Your task to perform on an android device: remove spam from my inbox in the gmail app Image 0: 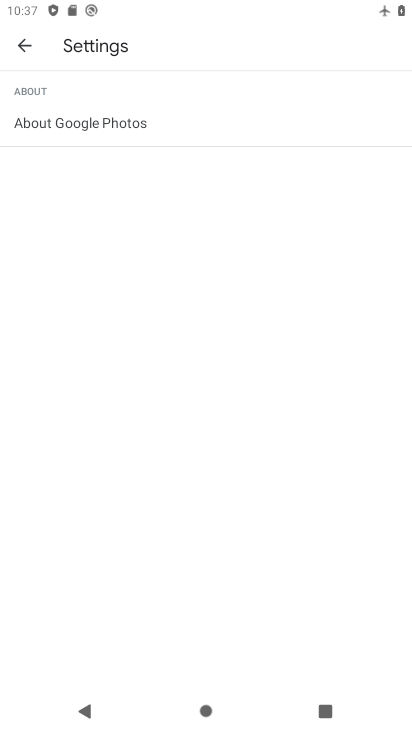
Step 0: press home button
Your task to perform on an android device: remove spam from my inbox in the gmail app Image 1: 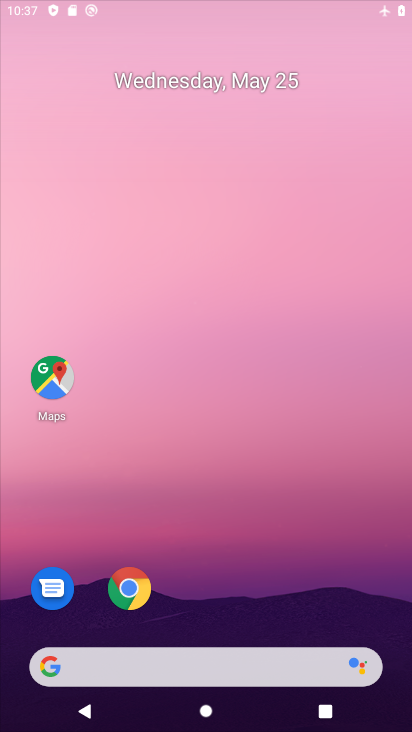
Step 1: drag from (321, 542) to (259, 85)
Your task to perform on an android device: remove spam from my inbox in the gmail app Image 2: 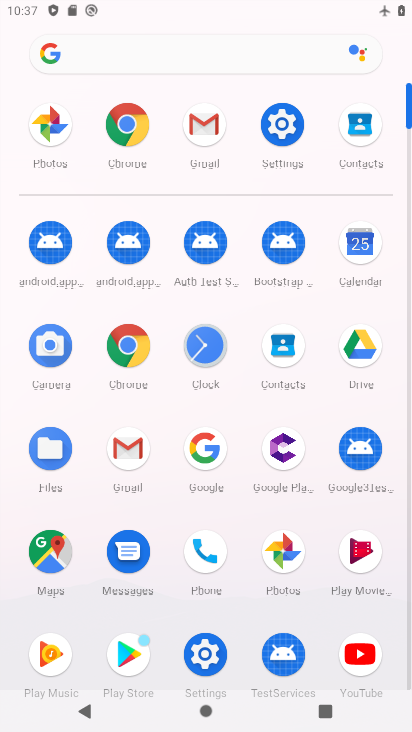
Step 2: click (216, 130)
Your task to perform on an android device: remove spam from my inbox in the gmail app Image 3: 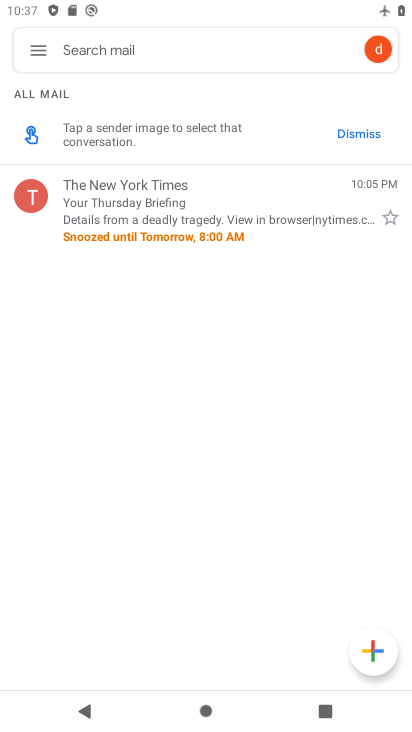
Step 3: click (16, 56)
Your task to perform on an android device: remove spam from my inbox in the gmail app Image 4: 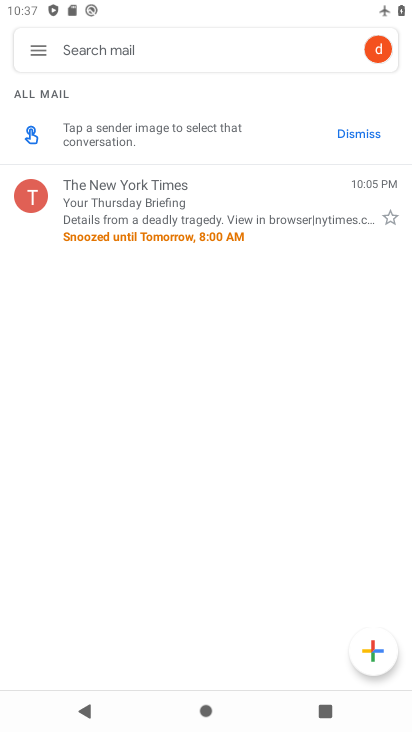
Step 4: click (37, 48)
Your task to perform on an android device: remove spam from my inbox in the gmail app Image 5: 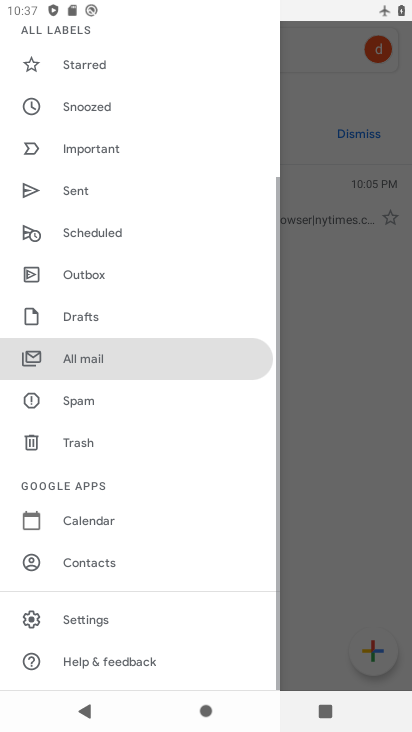
Step 5: drag from (55, 118) to (78, 596)
Your task to perform on an android device: remove spam from my inbox in the gmail app Image 6: 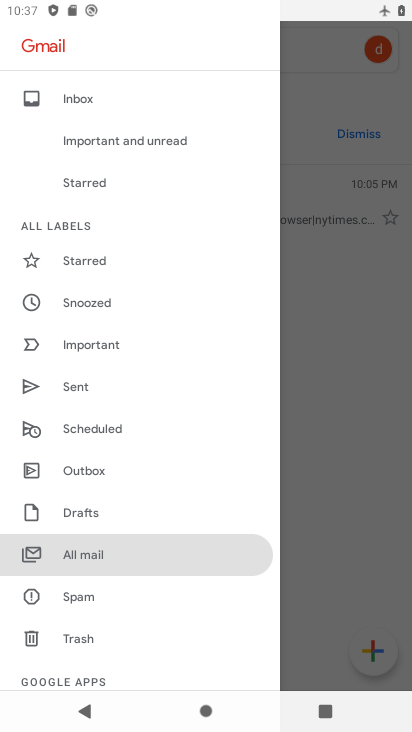
Step 6: click (83, 104)
Your task to perform on an android device: remove spam from my inbox in the gmail app Image 7: 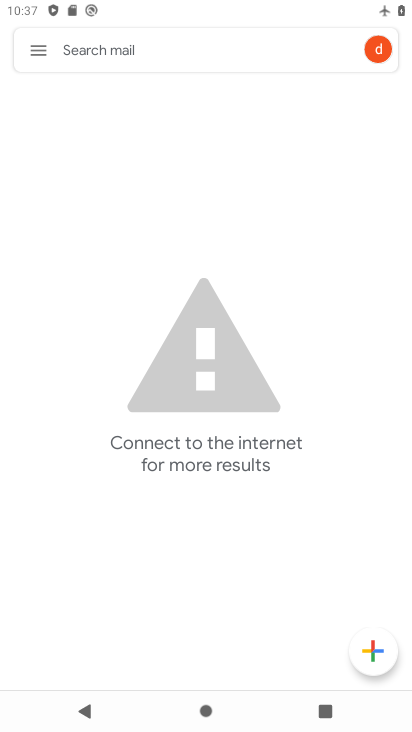
Step 7: task complete